Your task to perform on an android device: Open privacy settings Image 0: 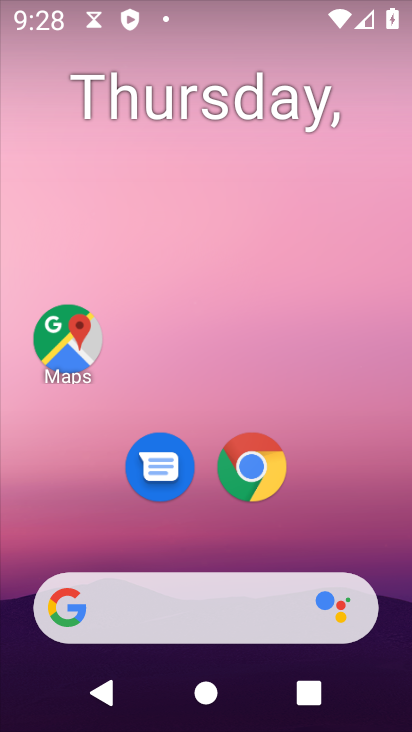
Step 0: click (262, 476)
Your task to perform on an android device: Open privacy settings Image 1: 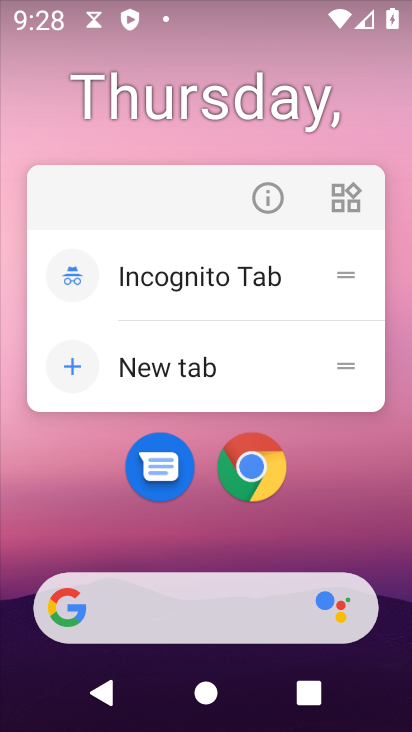
Step 1: click (254, 464)
Your task to perform on an android device: Open privacy settings Image 2: 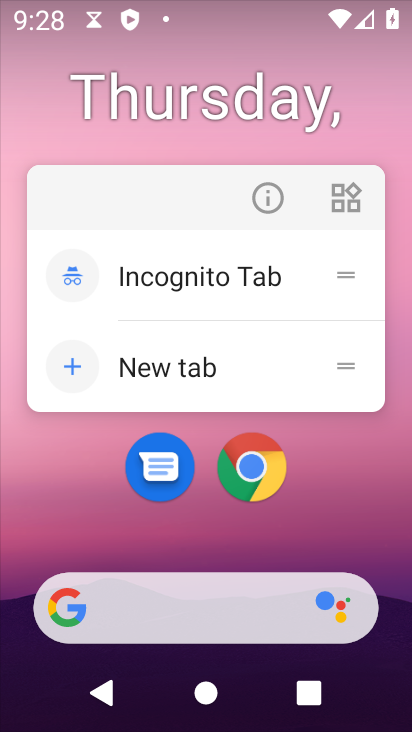
Step 2: click (254, 464)
Your task to perform on an android device: Open privacy settings Image 3: 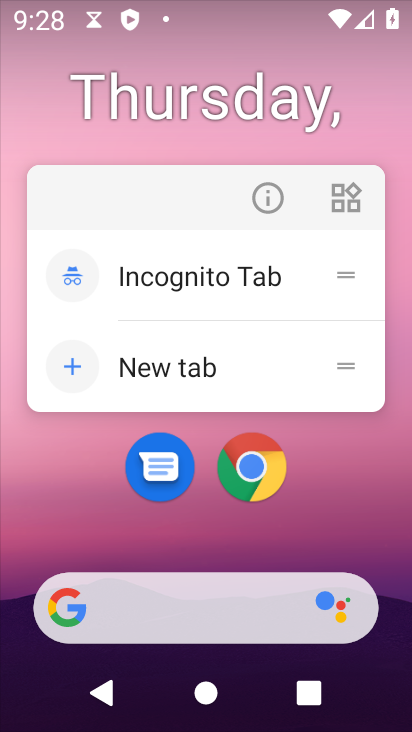
Step 3: click (254, 464)
Your task to perform on an android device: Open privacy settings Image 4: 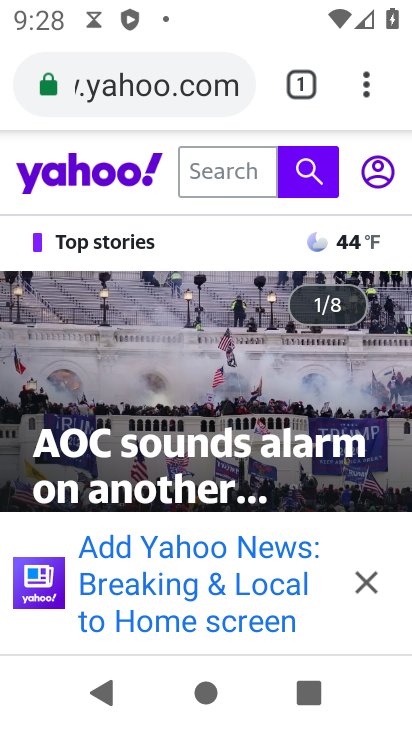
Step 4: click (368, 88)
Your task to perform on an android device: Open privacy settings Image 5: 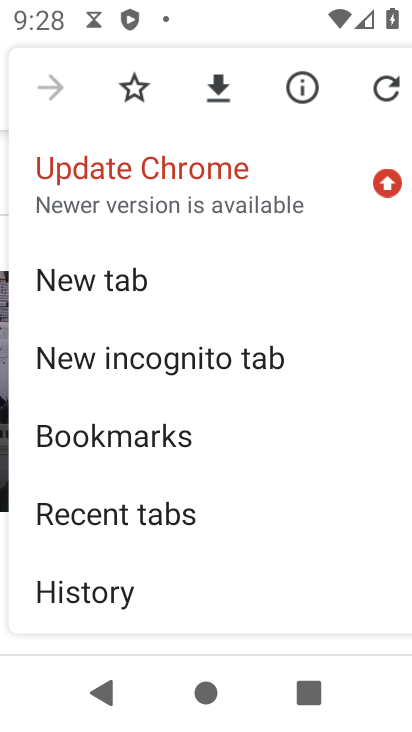
Step 5: drag from (169, 570) to (204, 433)
Your task to perform on an android device: Open privacy settings Image 6: 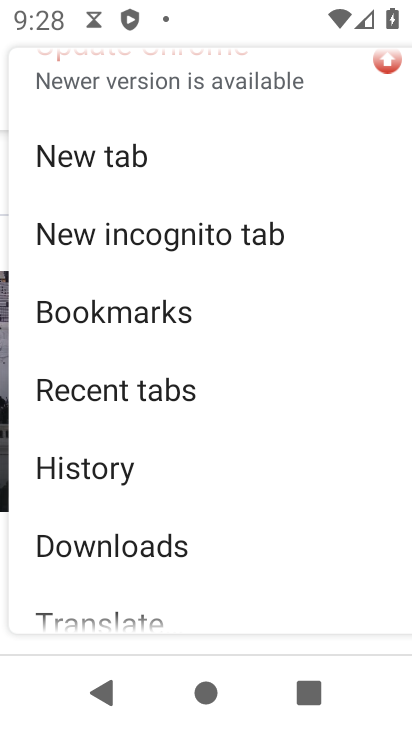
Step 6: drag from (172, 541) to (202, 418)
Your task to perform on an android device: Open privacy settings Image 7: 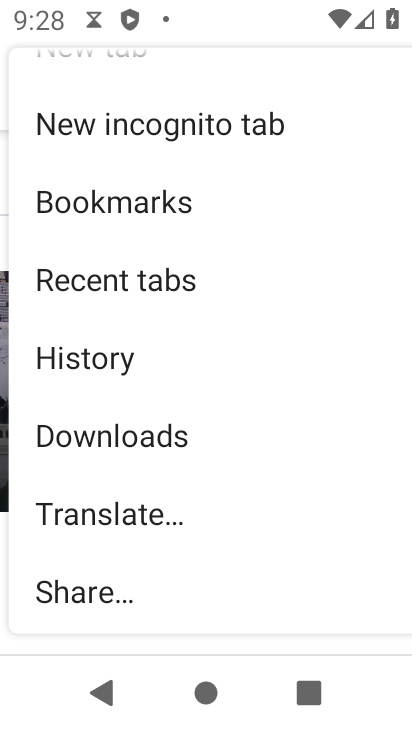
Step 7: drag from (177, 520) to (220, 401)
Your task to perform on an android device: Open privacy settings Image 8: 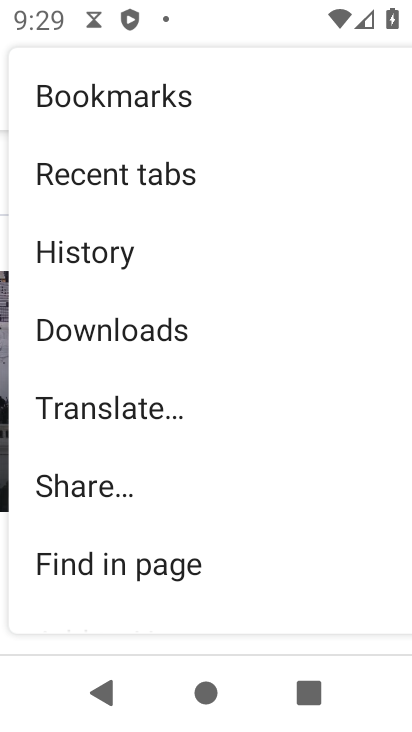
Step 8: drag from (197, 525) to (232, 392)
Your task to perform on an android device: Open privacy settings Image 9: 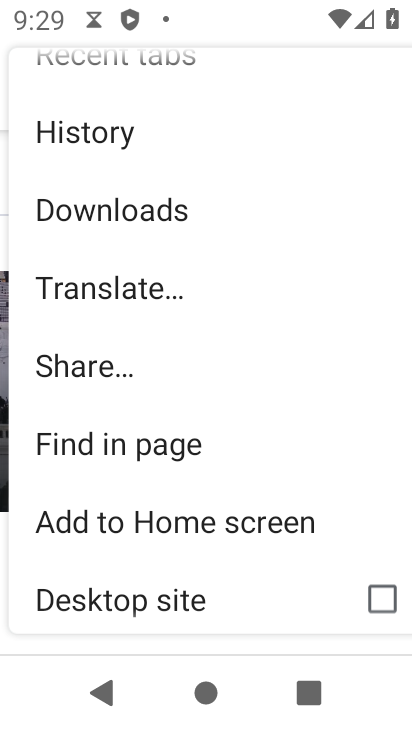
Step 9: drag from (195, 520) to (212, 418)
Your task to perform on an android device: Open privacy settings Image 10: 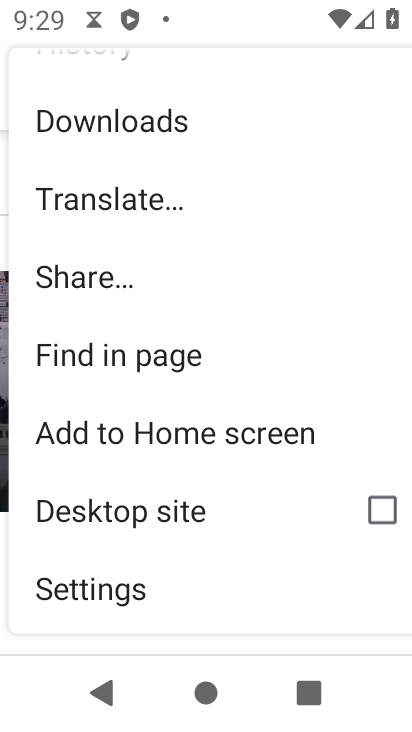
Step 10: drag from (186, 520) to (211, 435)
Your task to perform on an android device: Open privacy settings Image 11: 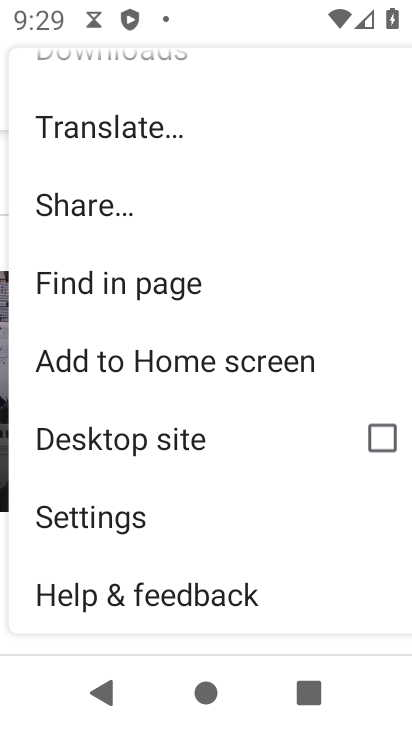
Step 11: click (197, 507)
Your task to perform on an android device: Open privacy settings Image 12: 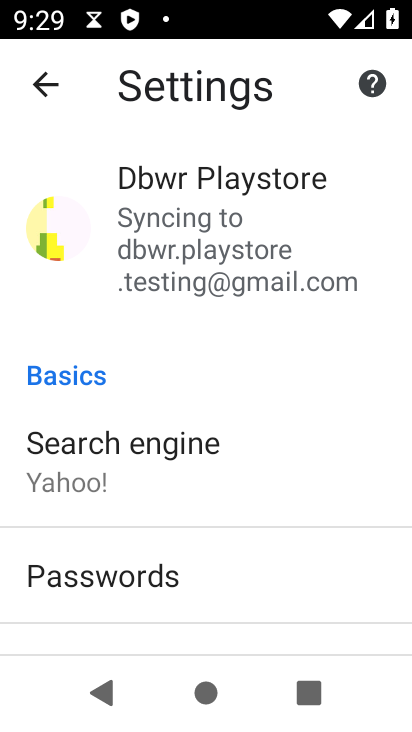
Step 12: drag from (197, 523) to (208, 453)
Your task to perform on an android device: Open privacy settings Image 13: 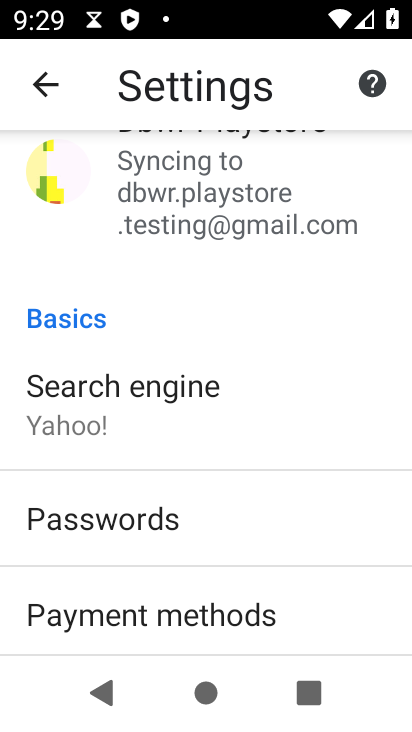
Step 13: drag from (196, 522) to (199, 475)
Your task to perform on an android device: Open privacy settings Image 14: 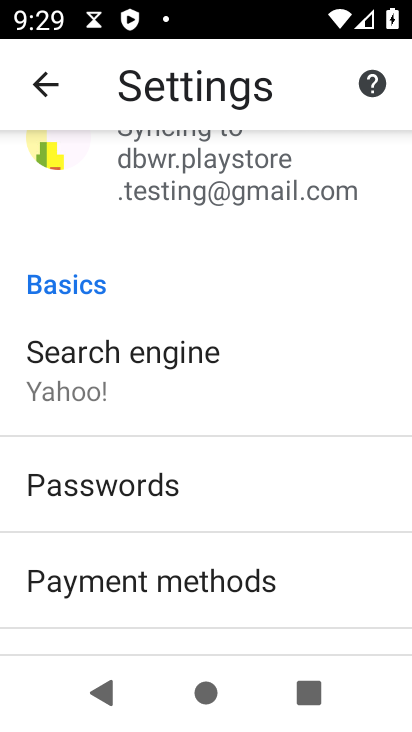
Step 14: drag from (199, 517) to (211, 450)
Your task to perform on an android device: Open privacy settings Image 15: 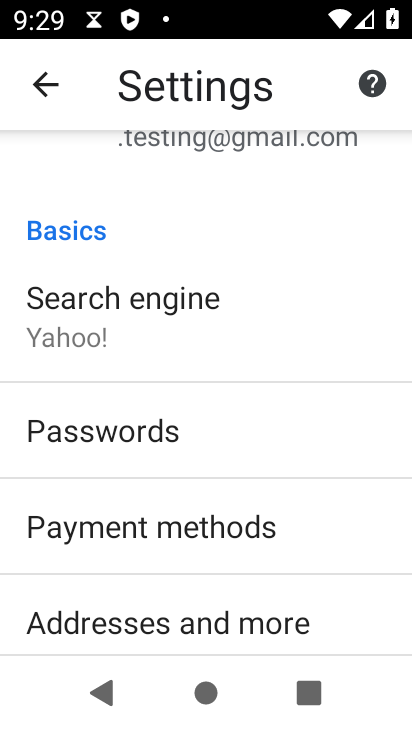
Step 15: drag from (202, 487) to (212, 424)
Your task to perform on an android device: Open privacy settings Image 16: 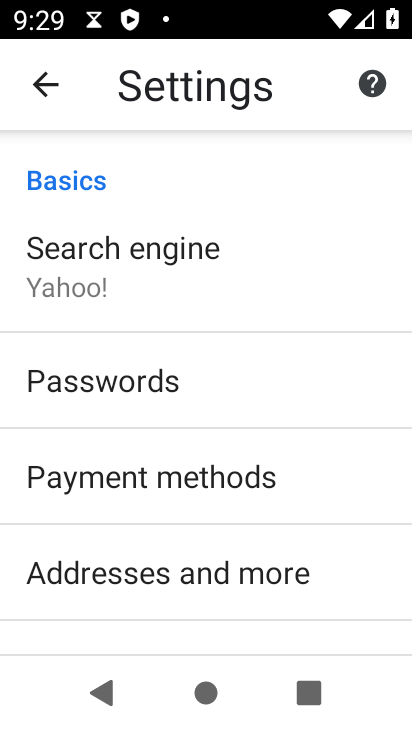
Step 16: drag from (181, 522) to (187, 446)
Your task to perform on an android device: Open privacy settings Image 17: 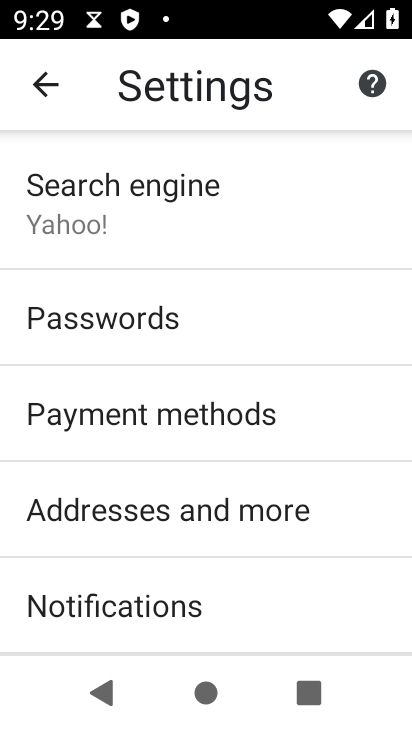
Step 17: drag from (183, 544) to (212, 461)
Your task to perform on an android device: Open privacy settings Image 18: 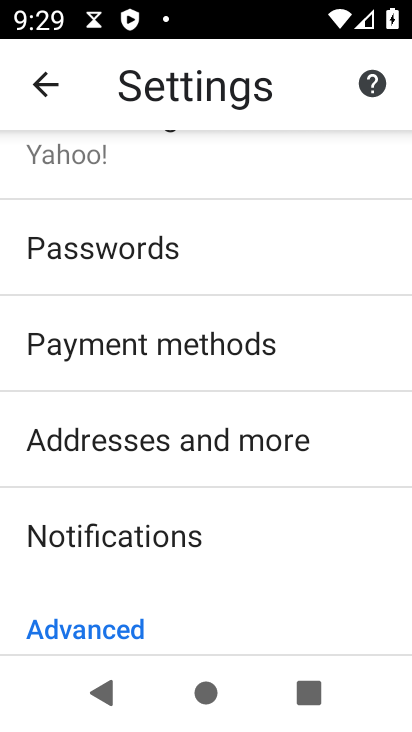
Step 18: drag from (179, 543) to (180, 500)
Your task to perform on an android device: Open privacy settings Image 19: 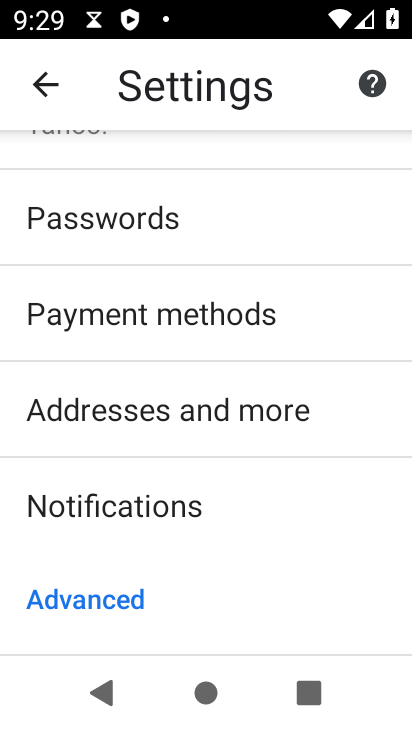
Step 19: drag from (161, 551) to (170, 480)
Your task to perform on an android device: Open privacy settings Image 20: 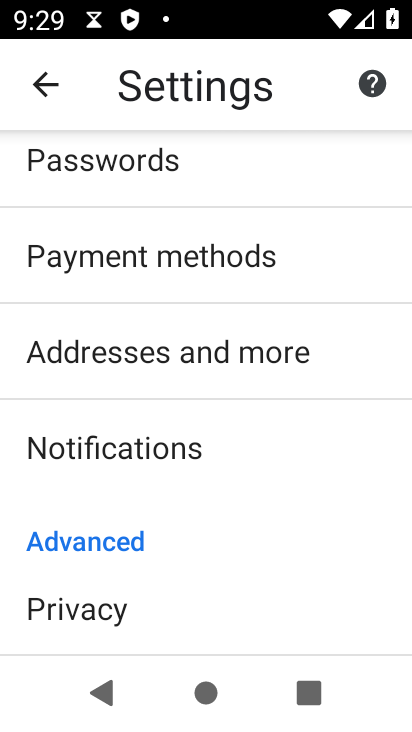
Step 20: drag from (153, 557) to (160, 488)
Your task to perform on an android device: Open privacy settings Image 21: 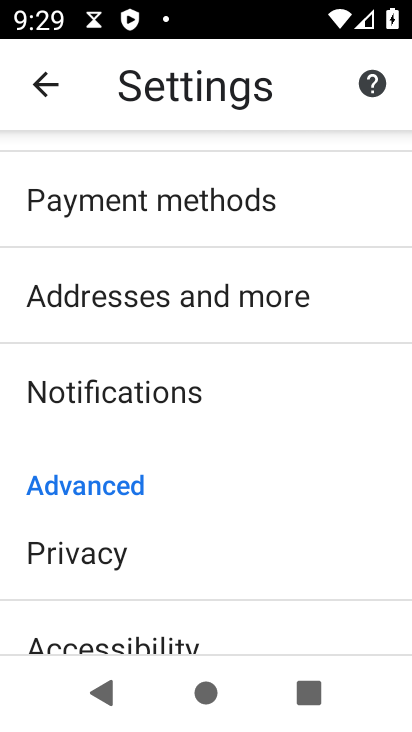
Step 21: click (157, 546)
Your task to perform on an android device: Open privacy settings Image 22: 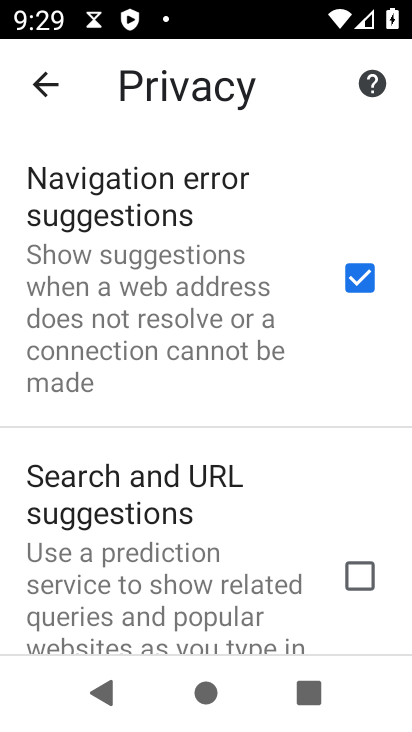
Step 22: task complete